Your task to perform on an android device: Clear all items from cart on amazon.com. Image 0: 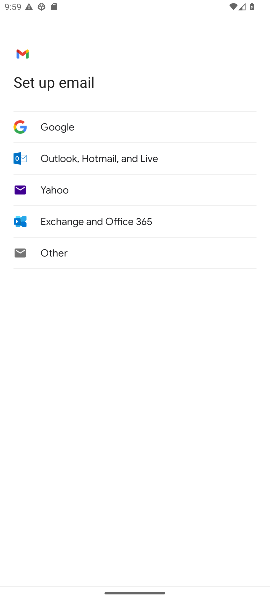
Step 0: press home button
Your task to perform on an android device: Clear all items from cart on amazon.com. Image 1: 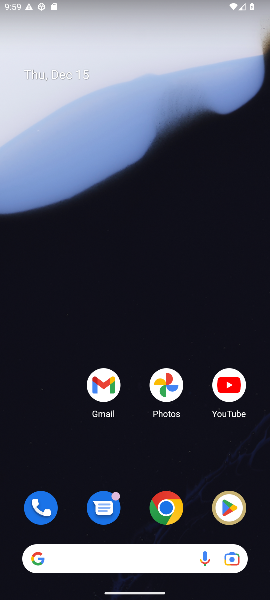
Step 1: drag from (115, 561) to (148, 176)
Your task to perform on an android device: Clear all items from cart on amazon.com. Image 2: 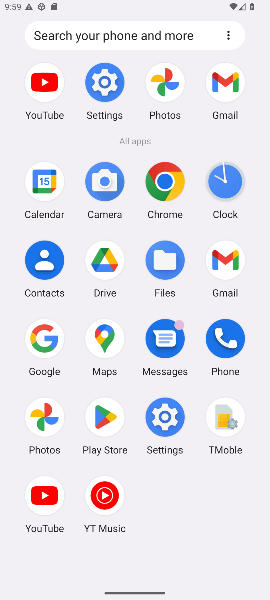
Step 2: click (45, 339)
Your task to perform on an android device: Clear all items from cart on amazon.com. Image 3: 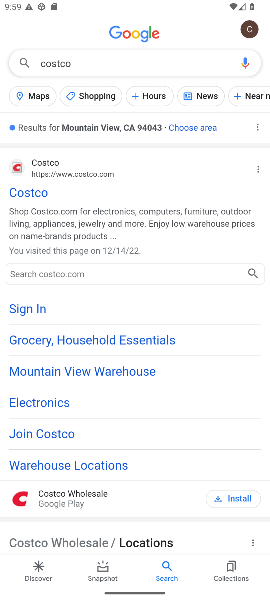
Step 3: click (53, 62)
Your task to perform on an android device: Clear all items from cart on amazon.com. Image 4: 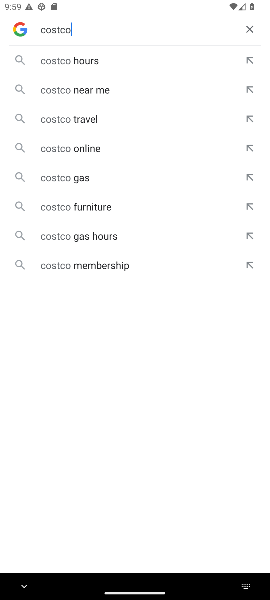
Step 4: click (250, 29)
Your task to perform on an android device: Clear all items from cart on amazon.com. Image 5: 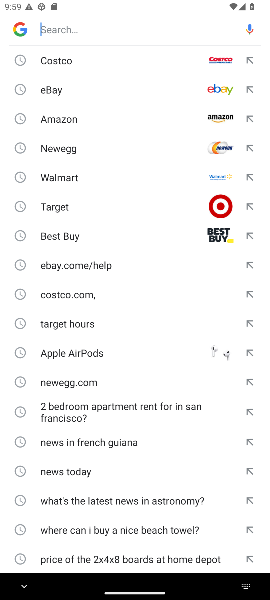
Step 5: click (62, 121)
Your task to perform on an android device: Clear all items from cart on amazon.com. Image 6: 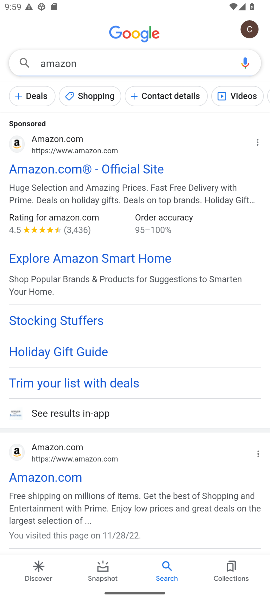
Step 6: click (74, 166)
Your task to perform on an android device: Clear all items from cart on amazon.com. Image 7: 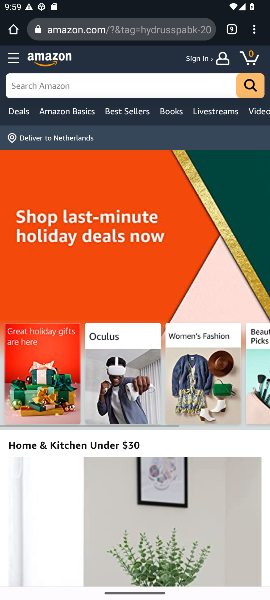
Step 7: click (87, 85)
Your task to perform on an android device: Clear all items from cart on amazon.com. Image 8: 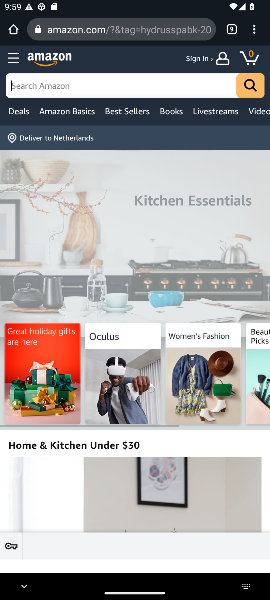
Step 8: click (250, 56)
Your task to perform on an android device: Clear all items from cart on amazon.com. Image 9: 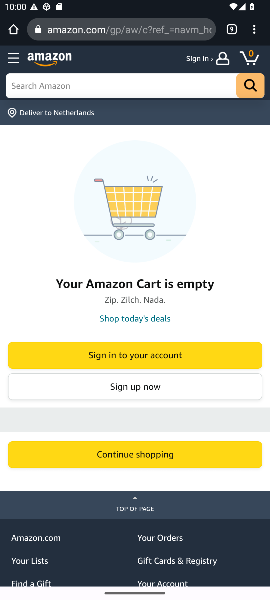
Step 9: task complete